Your task to perform on an android device: turn on data saver in the chrome app Image 0: 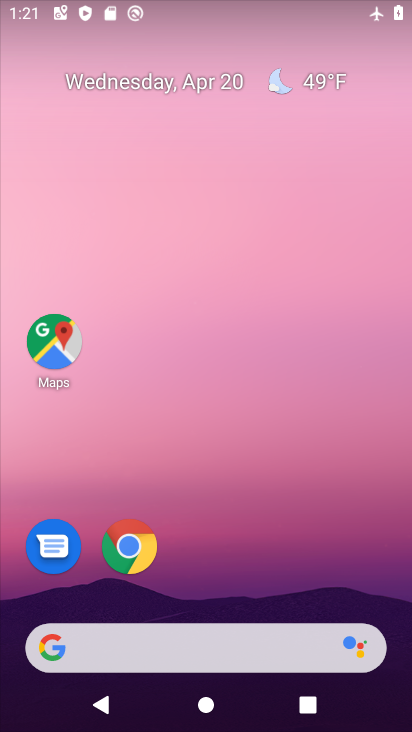
Step 0: drag from (249, 534) to (290, 247)
Your task to perform on an android device: turn on data saver in the chrome app Image 1: 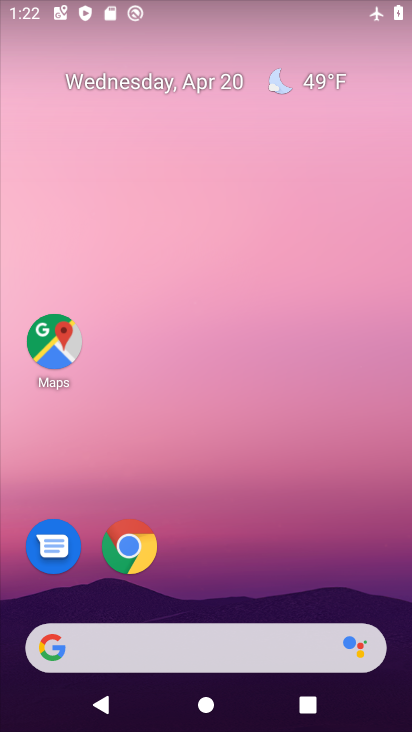
Step 1: drag from (247, 609) to (271, 169)
Your task to perform on an android device: turn on data saver in the chrome app Image 2: 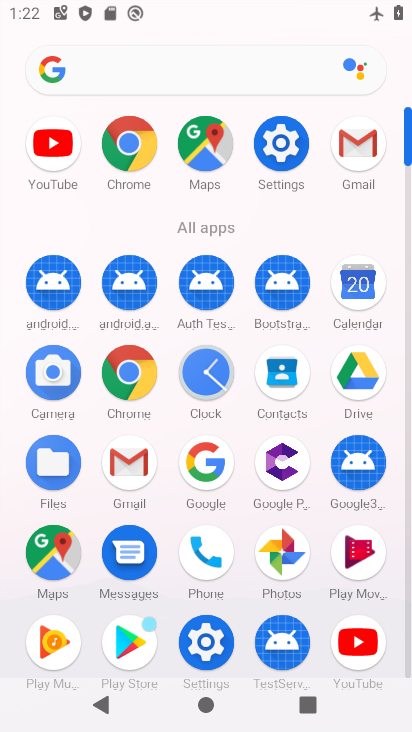
Step 2: click (129, 144)
Your task to perform on an android device: turn on data saver in the chrome app Image 3: 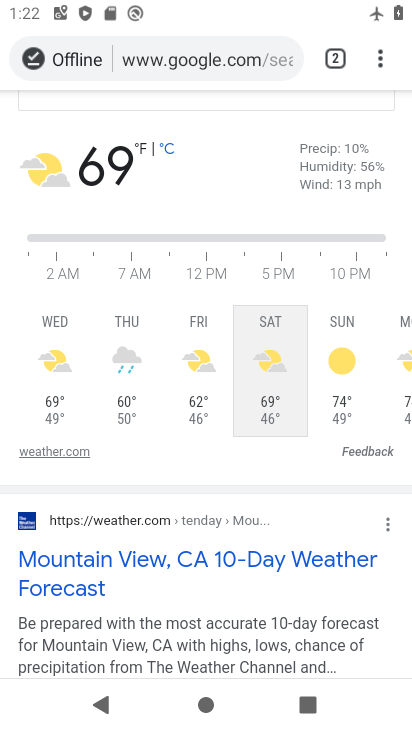
Step 3: click (379, 53)
Your task to perform on an android device: turn on data saver in the chrome app Image 4: 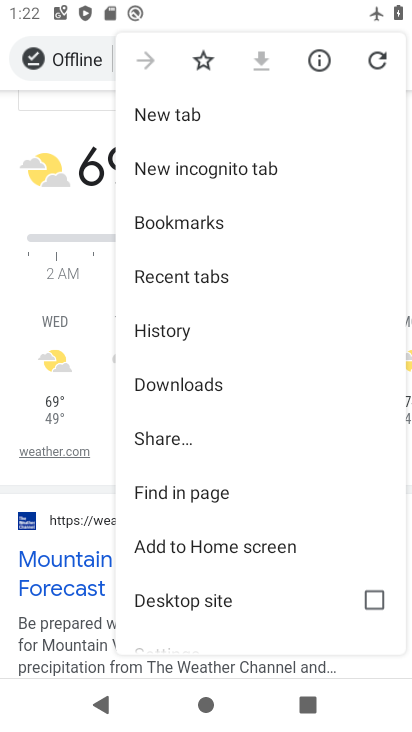
Step 4: drag from (236, 578) to (235, 287)
Your task to perform on an android device: turn on data saver in the chrome app Image 5: 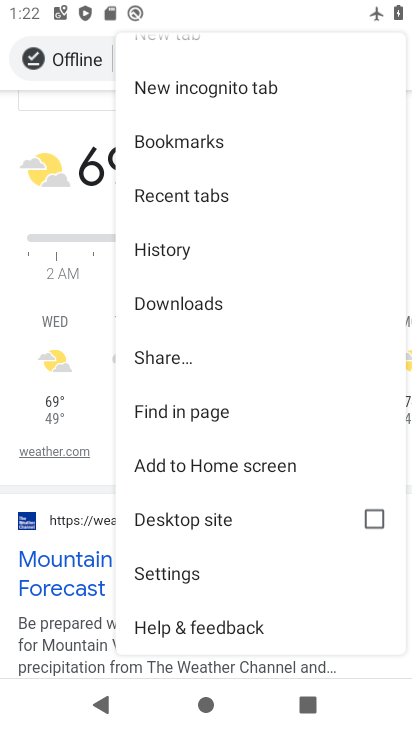
Step 5: click (180, 572)
Your task to perform on an android device: turn on data saver in the chrome app Image 6: 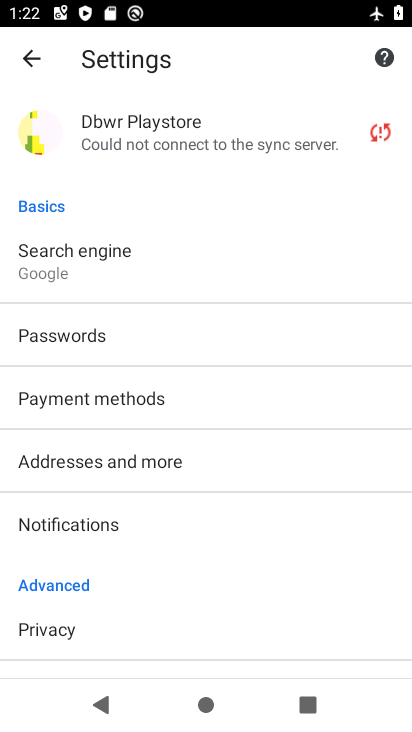
Step 6: drag from (238, 566) to (285, 199)
Your task to perform on an android device: turn on data saver in the chrome app Image 7: 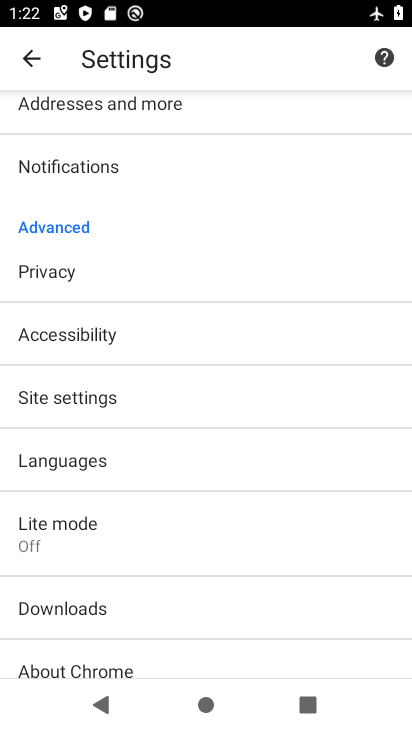
Step 7: click (118, 528)
Your task to perform on an android device: turn on data saver in the chrome app Image 8: 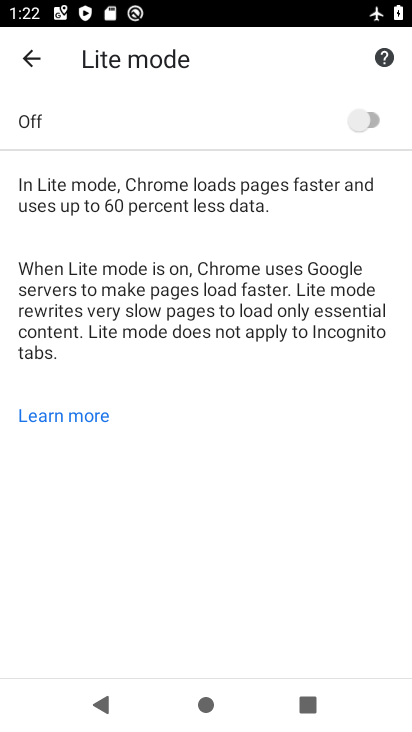
Step 8: click (374, 112)
Your task to perform on an android device: turn on data saver in the chrome app Image 9: 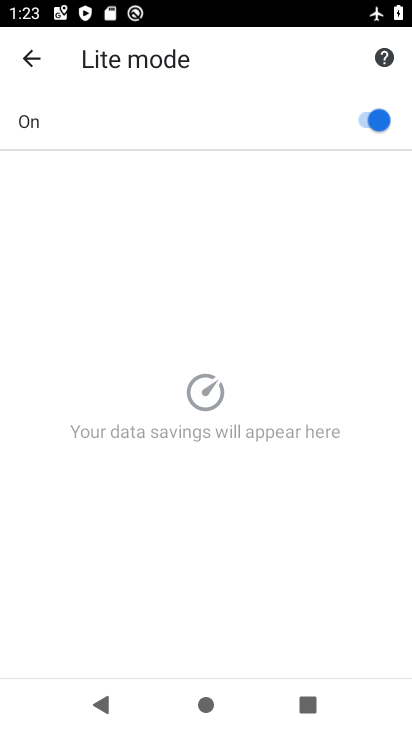
Step 9: task complete